Your task to perform on an android device: Go to sound settings Image 0: 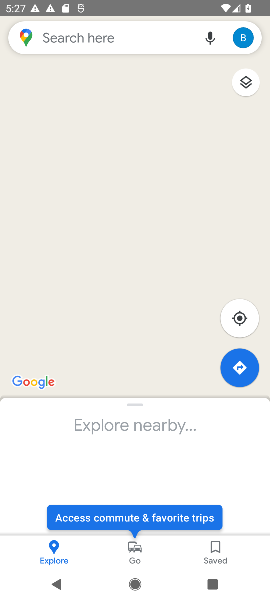
Step 0: press home button
Your task to perform on an android device: Go to sound settings Image 1: 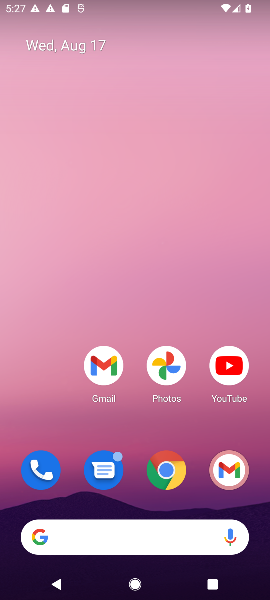
Step 1: drag from (137, 502) to (113, 3)
Your task to perform on an android device: Go to sound settings Image 2: 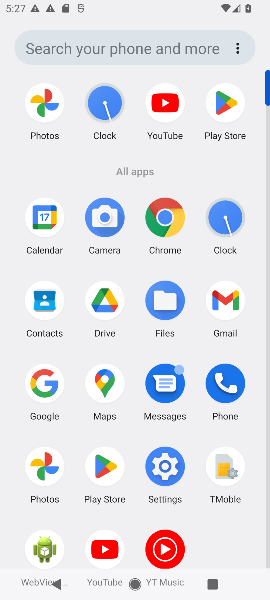
Step 2: click (165, 471)
Your task to perform on an android device: Go to sound settings Image 3: 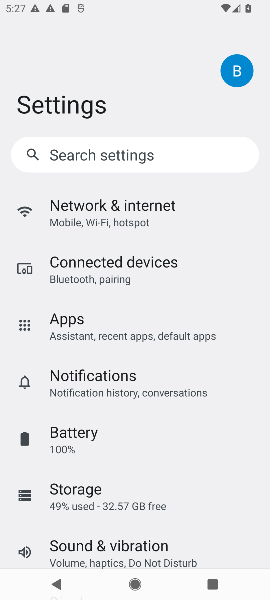
Step 3: click (94, 548)
Your task to perform on an android device: Go to sound settings Image 4: 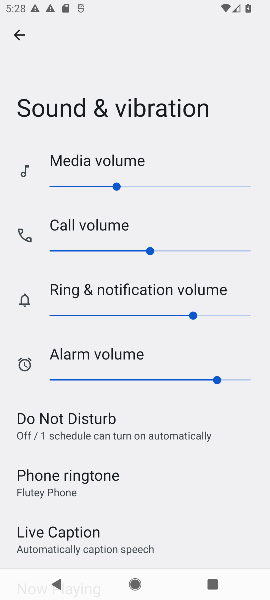
Step 4: task complete